Your task to perform on an android device: Show me the alarms in the clock app Image 0: 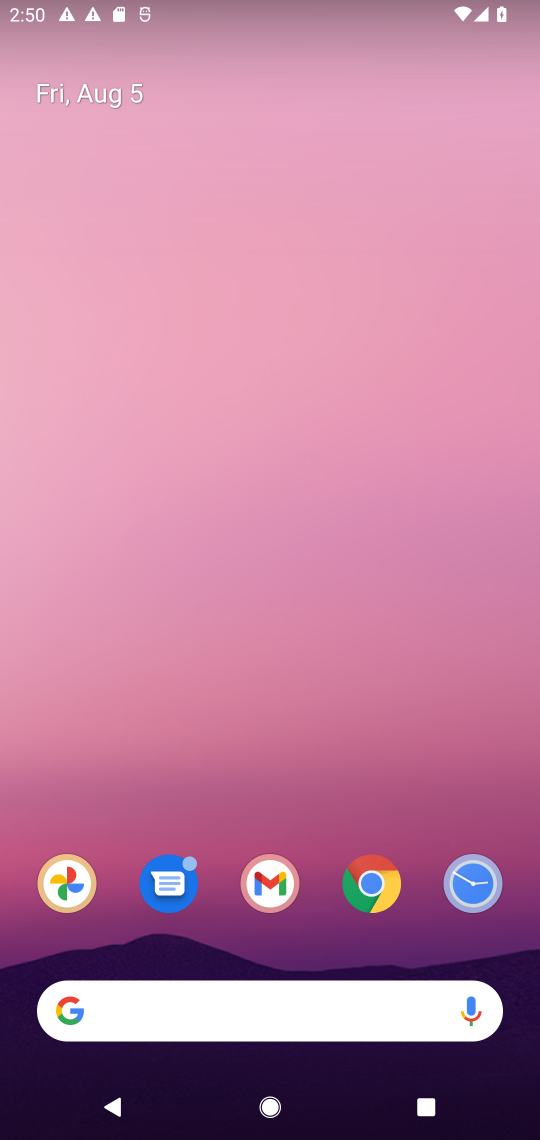
Step 0: press home button
Your task to perform on an android device: Show me the alarms in the clock app Image 1: 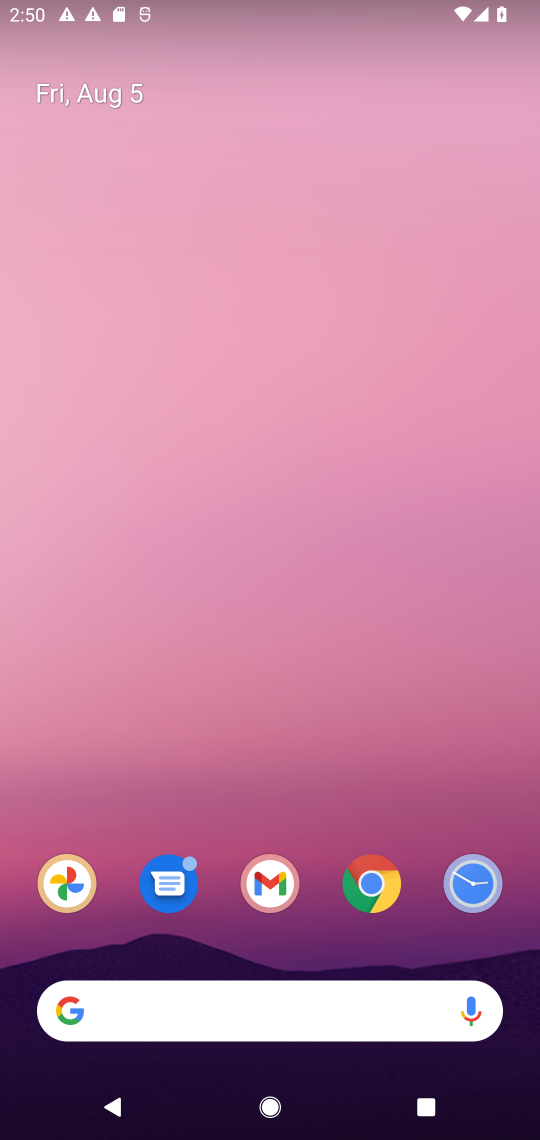
Step 1: click (470, 870)
Your task to perform on an android device: Show me the alarms in the clock app Image 2: 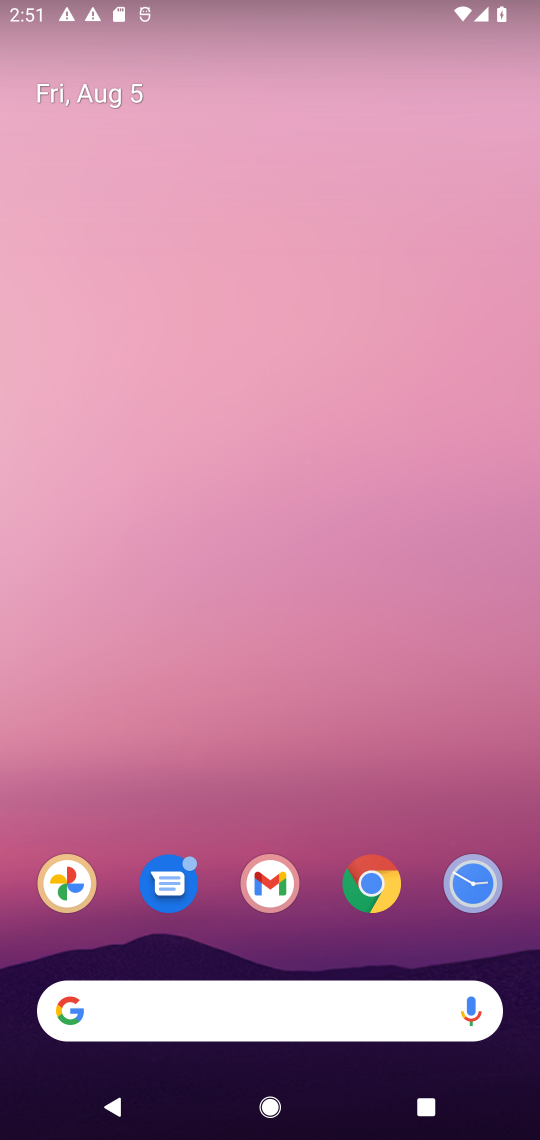
Step 2: click (469, 872)
Your task to perform on an android device: Show me the alarms in the clock app Image 3: 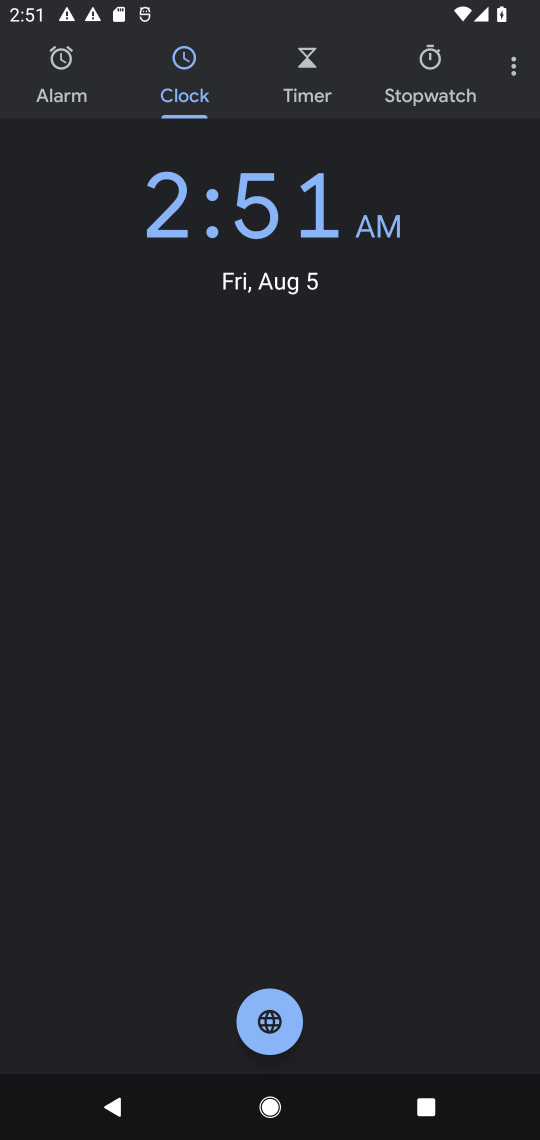
Step 3: click (60, 57)
Your task to perform on an android device: Show me the alarms in the clock app Image 4: 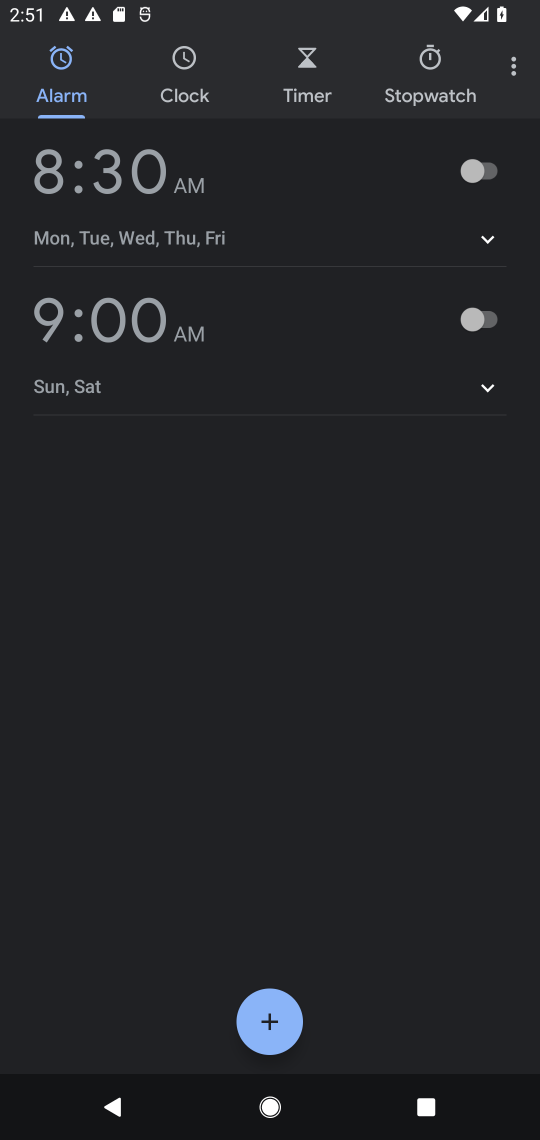
Step 4: click (473, 168)
Your task to perform on an android device: Show me the alarms in the clock app Image 5: 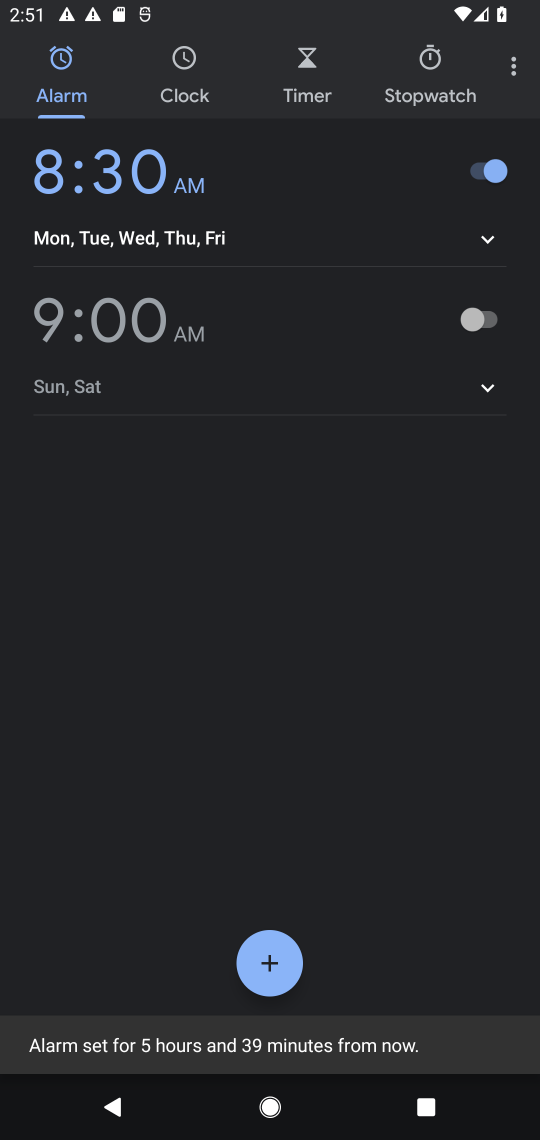
Step 5: task complete